Your task to perform on an android device: toggle notification dots Image 0: 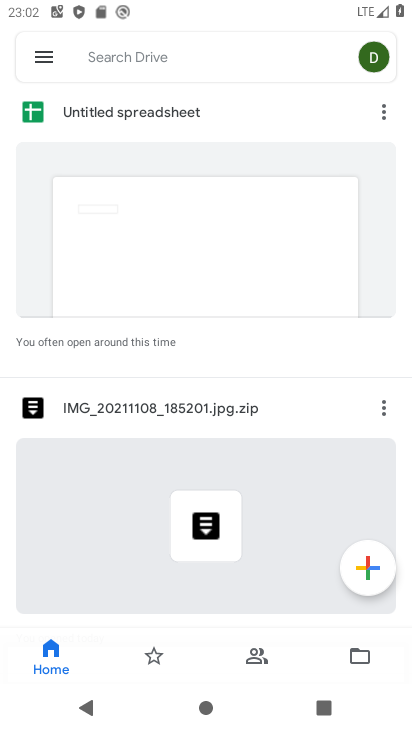
Step 0: press back button
Your task to perform on an android device: toggle notification dots Image 1: 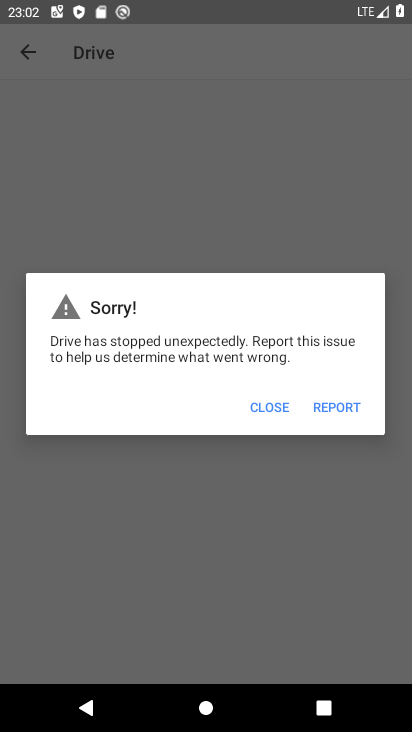
Step 1: press home button
Your task to perform on an android device: toggle notification dots Image 2: 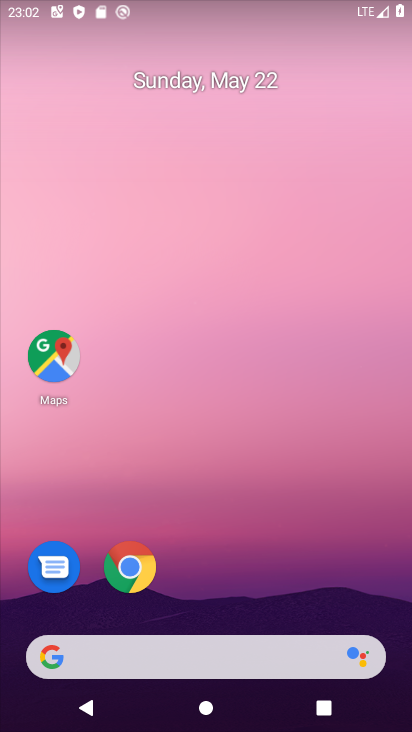
Step 2: drag from (280, 575) to (247, 1)
Your task to perform on an android device: toggle notification dots Image 3: 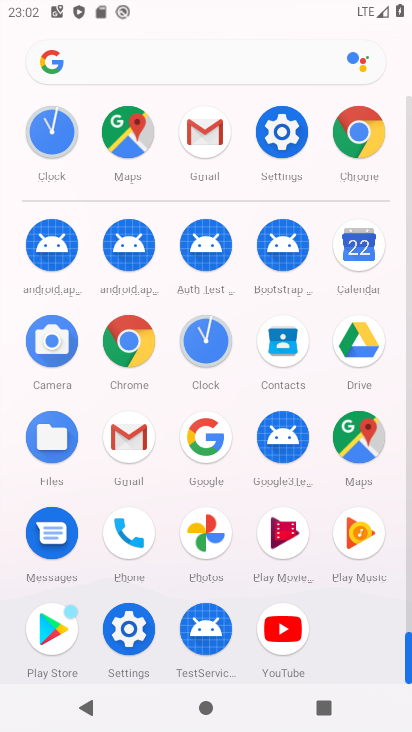
Step 3: click (280, 129)
Your task to perform on an android device: toggle notification dots Image 4: 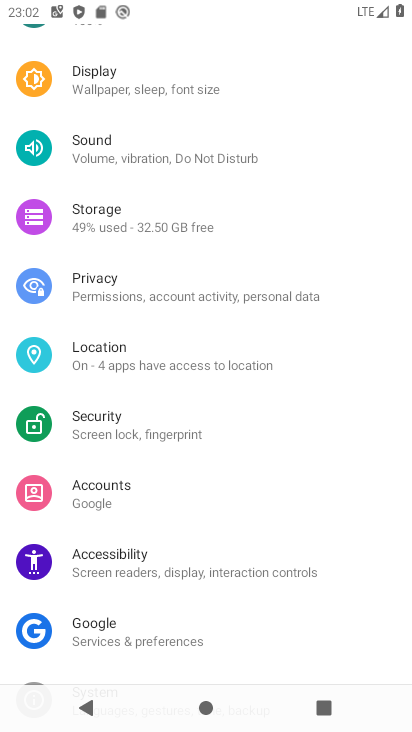
Step 4: drag from (242, 137) to (247, 427)
Your task to perform on an android device: toggle notification dots Image 5: 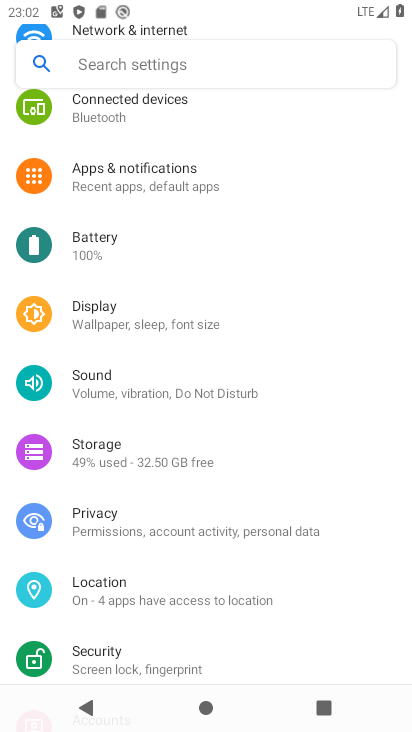
Step 5: click (185, 181)
Your task to perform on an android device: toggle notification dots Image 6: 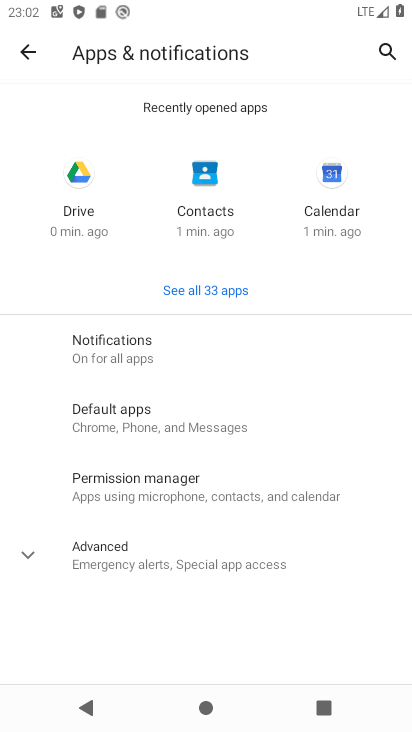
Step 6: click (185, 178)
Your task to perform on an android device: toggle notification dots Image 7: 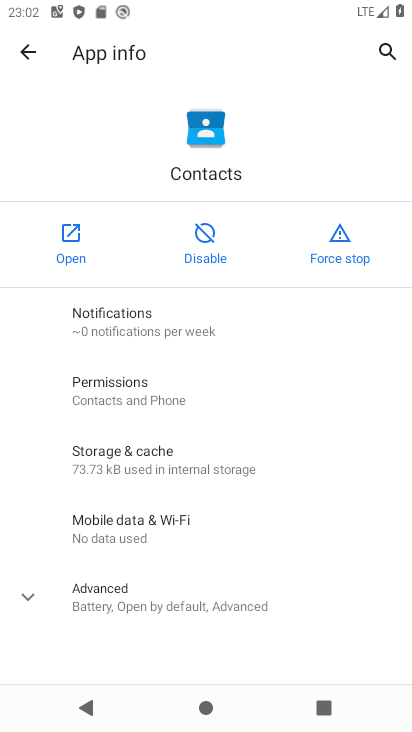
Step 7: click (34, 61)
Your task to perform on an android device: toggle notification dots Image 8: 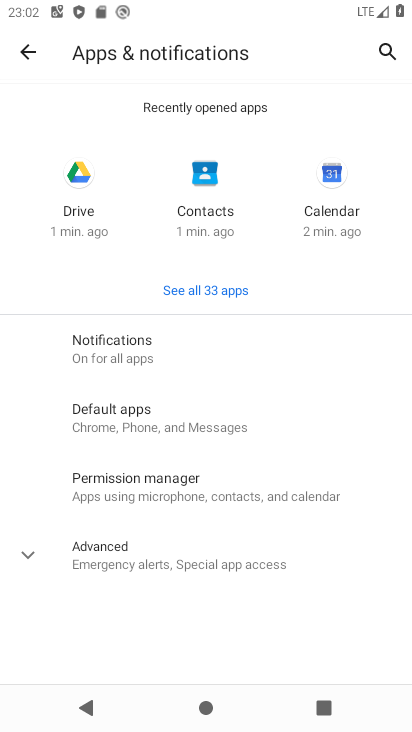
Step 8: click (131, 338)
Your task to perform on an android device: toggle notification dots Image 9: 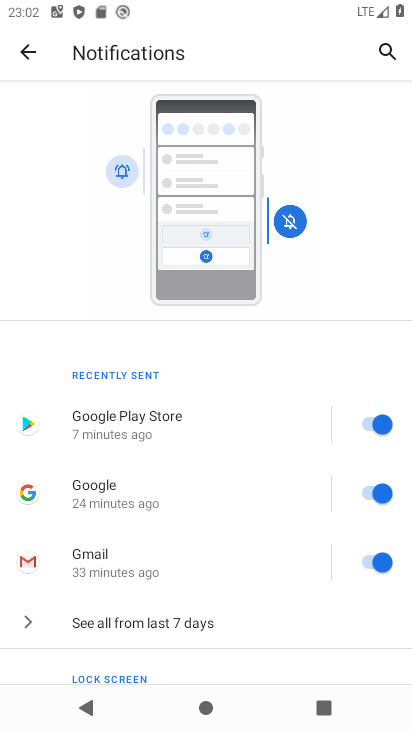
Step 9: drag from (196, 514) to (223, 113)
Your task to perform on an android device: toggle notification dots Image 10: 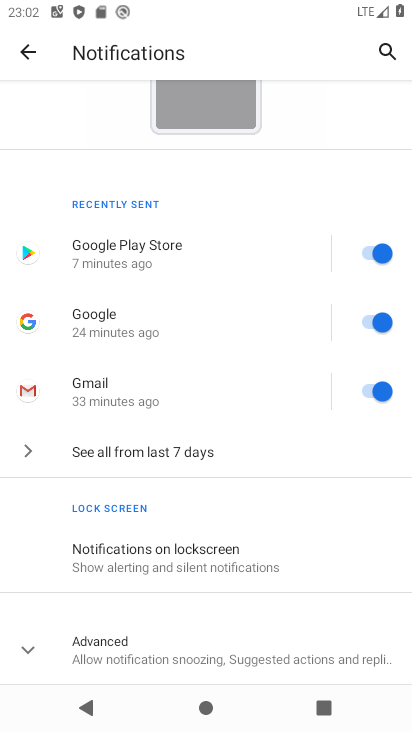
Step 10: click (132, 634)
Your task to perform on an android device: toggle notification dots Image 11: 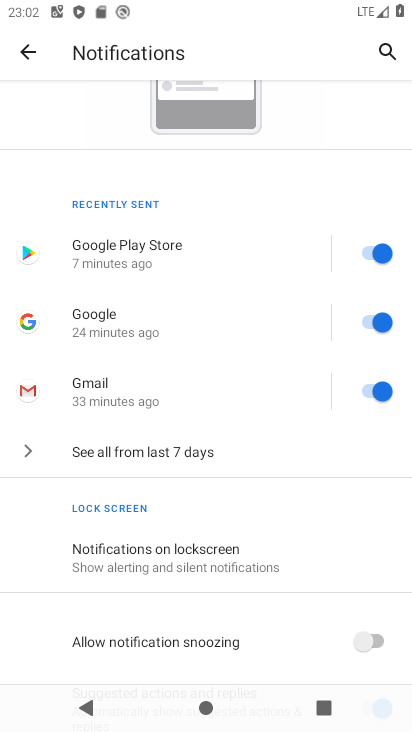
Step 11: drag from (210, 607) to (208, 153)
Your task to perform on an android device: toggle notification dots Image 12: 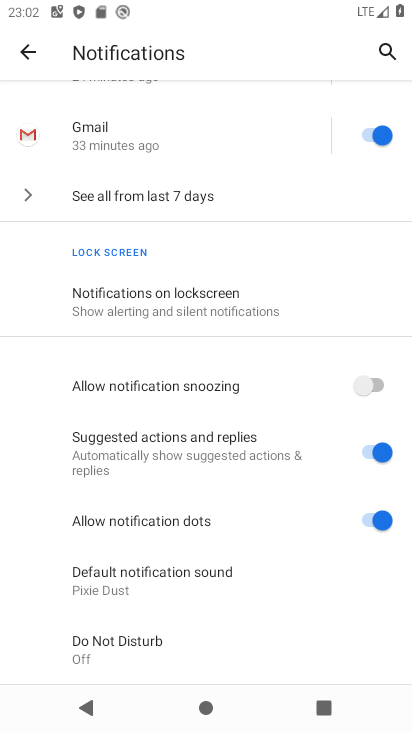
Step 12: click (389, 522)
Your task to perform on an android device: toggle notification dots Image 13: 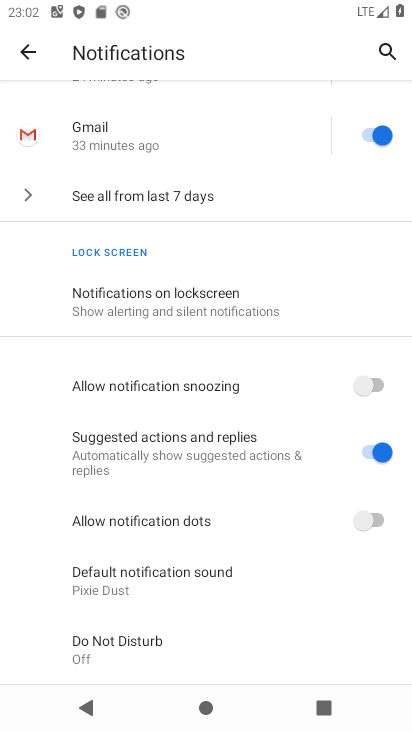
Step 13: task complete